Your task to perform on an android device: delete location history Image 0: 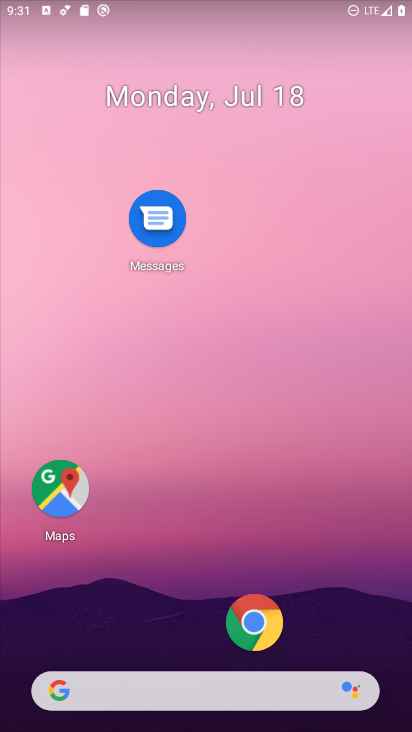
Step 0: drag from (208, 669) to (292, 94)
Your task to perform on an android device: delete location history Image 1: 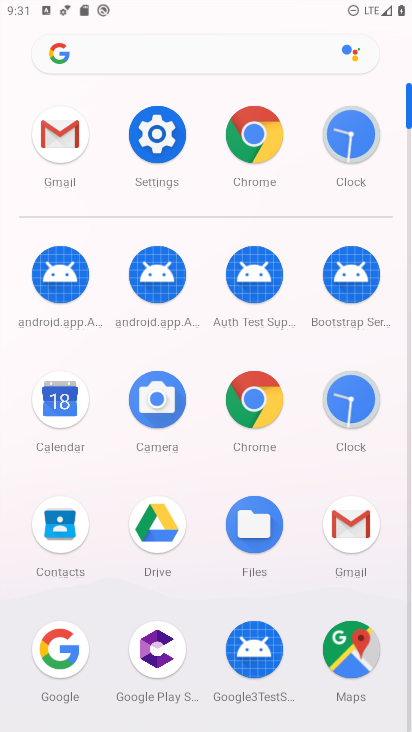
Step 1: click (160, 150)
Your task to perform on an android device: delete location history Image 2: 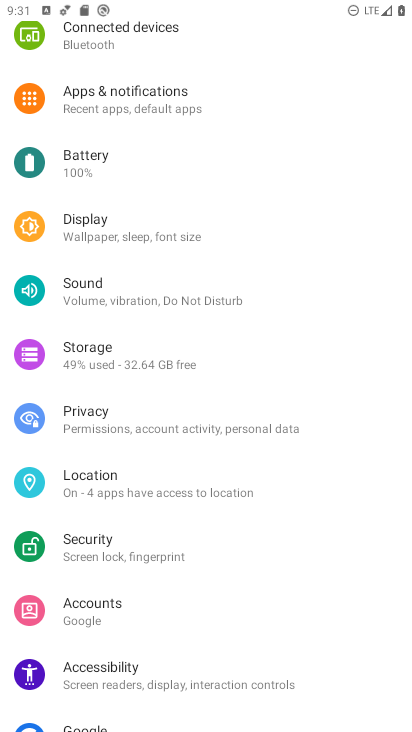
Step 2: drag from (144, 297) to (125, 551)
Your task to perform on an android device: delete location history Image 3: 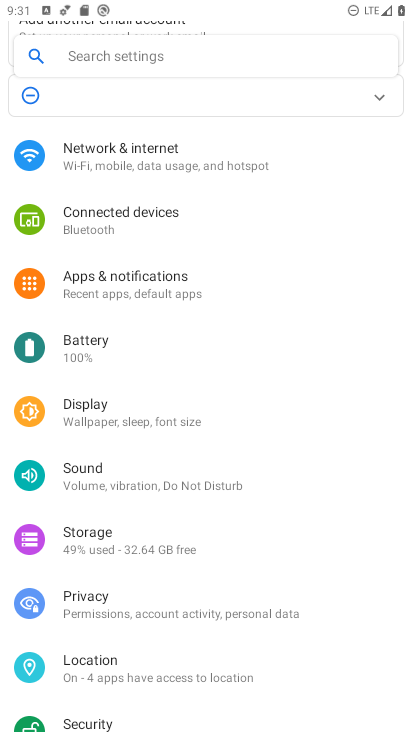
Step 3: drag from (172, 570) to (223, 310)
Your task to perform on an android device: delete location history Image 4: 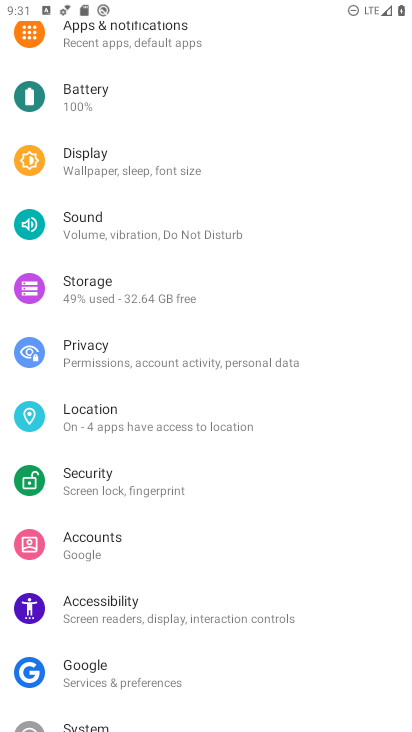
Step 4: click (124, 424)
Your task to perform on an android device: delete location history Image 5: 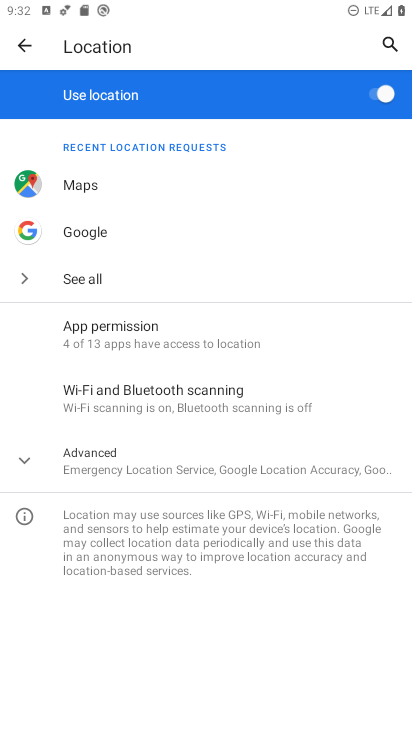
Step 5: click (147, 464)
Your task to perform on an android device: delete location history Image 6: 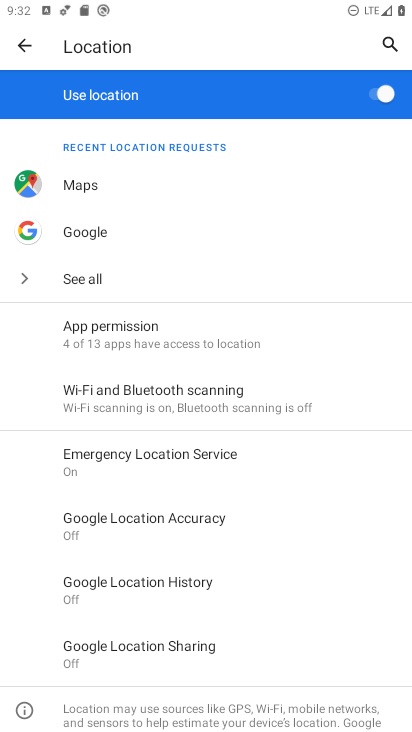
Step 6: click (150, 581)
Your task to perform on an android device: delete location history Image 7: 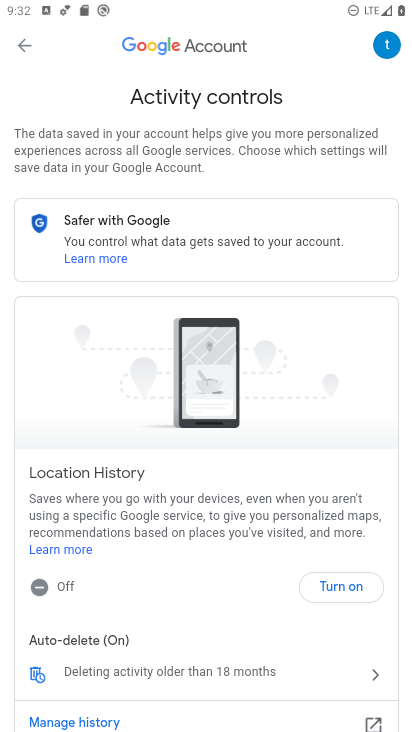
Step 7: click (284, 674)
Your task to perform on an android device: delete location history Image 8: 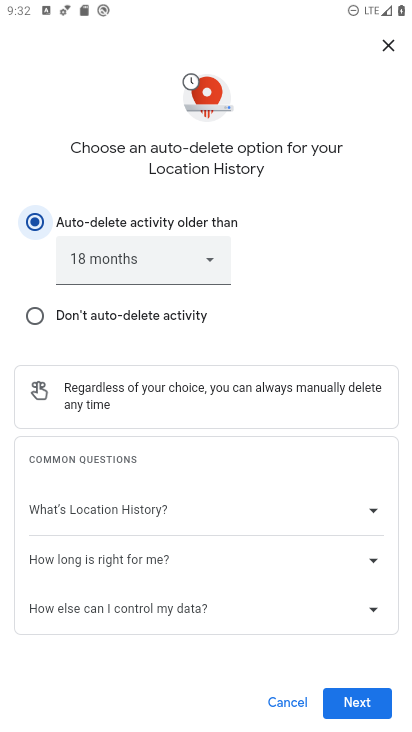
Step 8: click (352, 709)
Your task to perform on an android device: delete location history Image 9: 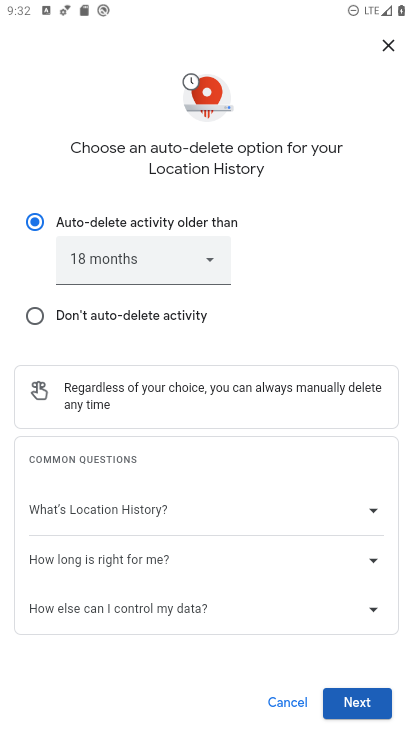
Step 9: click (357, 708)
Your task to perform on an android device: delete location history Image 10: 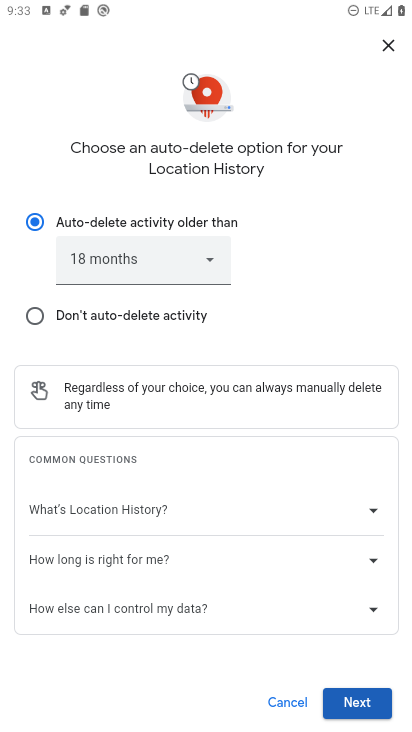
Step 10: click (375, 709)
Your task to perform on an android device: delete location history Image 11: 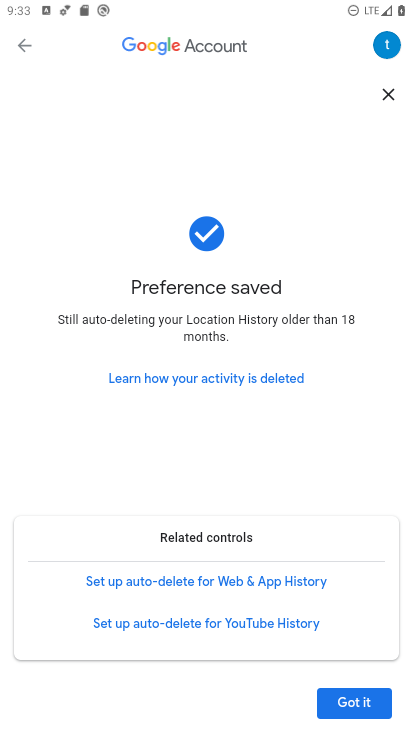
Step 11: click (363, 710)
Your task to perform on an android device: delete location history Image 12: 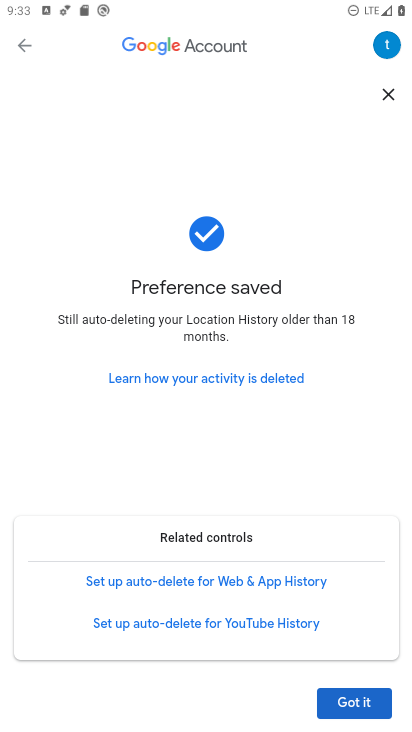
Step 12: task complete